Your task to perform on an android device: check android version Image 0: 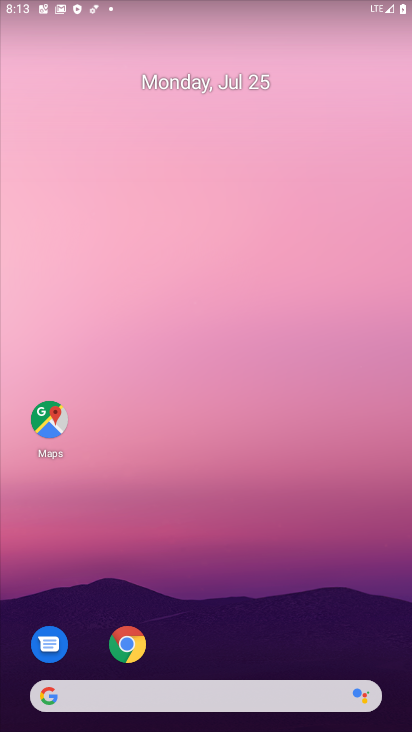
Step 0: drag from (215, 654) to (265, 278)
Your task to perform on an android device: check android version Image 1: 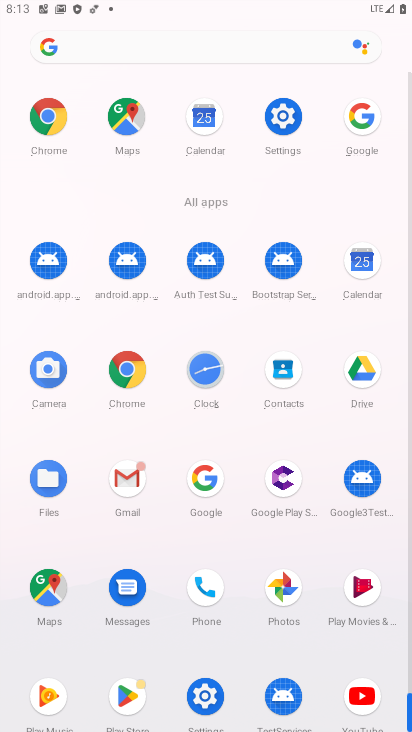
Step 1: click (208, 698)
Your task to perform on an android device: check android version Image 2: 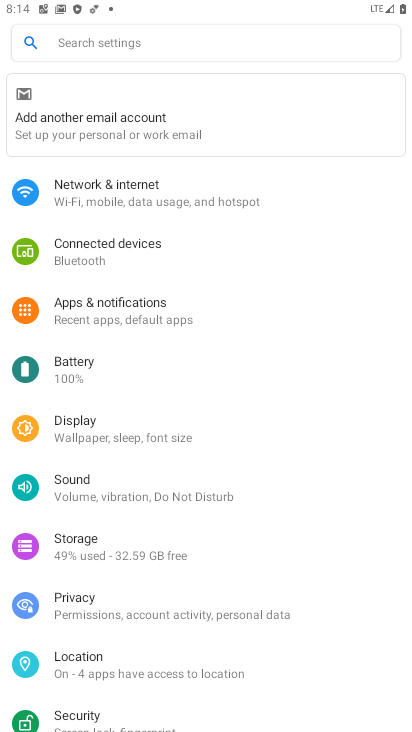
Step 2: task complete